Your task to perform on an android device: Open Maps and search for coffee Image 0: 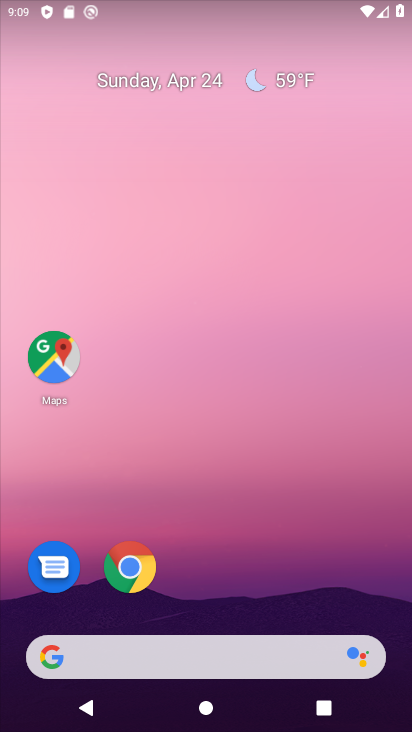
Step 0: click (337, 483)
Your task to perform on an android device: Open Maps and search for coffee Image 1: 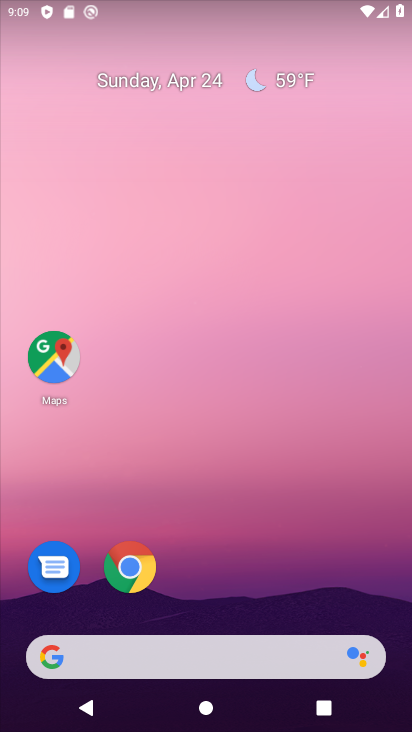
Step 1: click (51, 355)
Your task to perform on an android device: Open Maps and search for coffee Image 2: 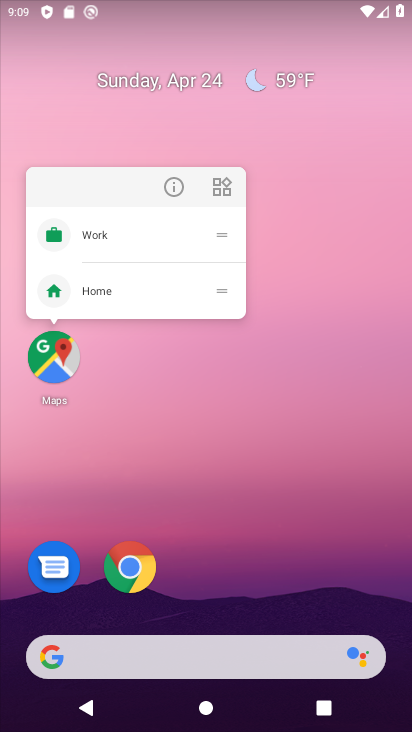
Step 2: click (51, 358)
Your task to perform on an android device: Open Maps and search for coffee Image 3: 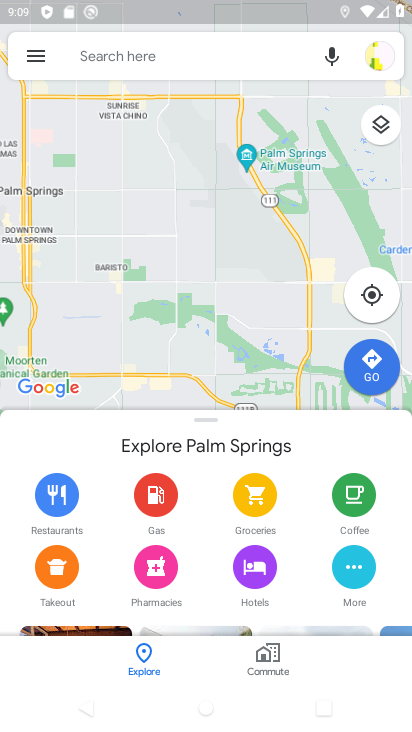
Step 3: click (77, 48)
Your task to perform on an android device: Open Maps and search for coffee Image 4: 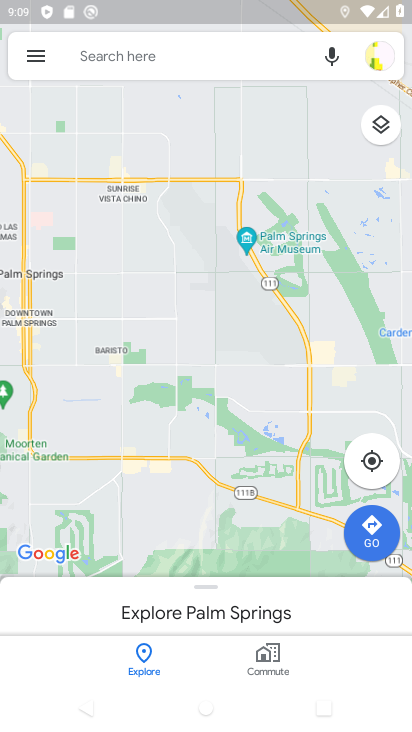
Step 4: click (112, 60)
Your task to perform on an android device: Open Maps and search for coffee Image 5: 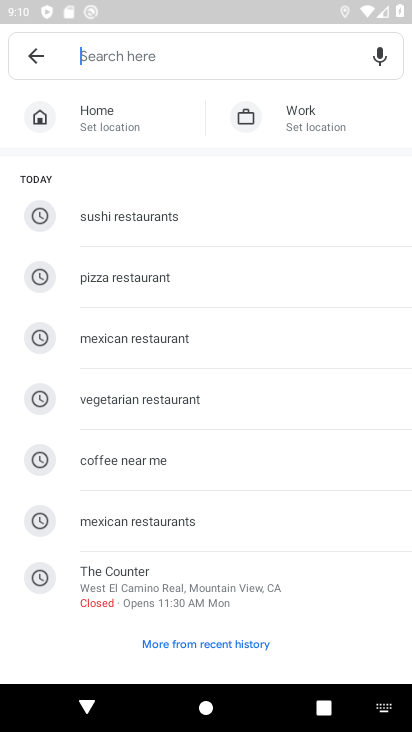
Step 5: type "coffee"
Your task to perform on an android device: Open Maps and search for coffee Image 6: 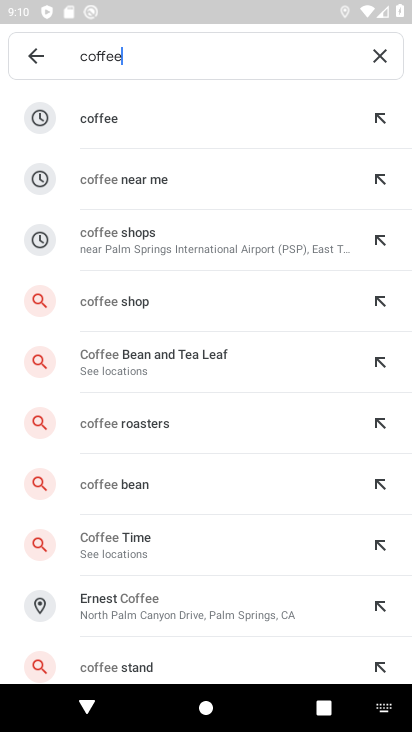
Step 6: click (102, 117)
Your task to perform on an android device: Open Maps and search for coffee Image 7: 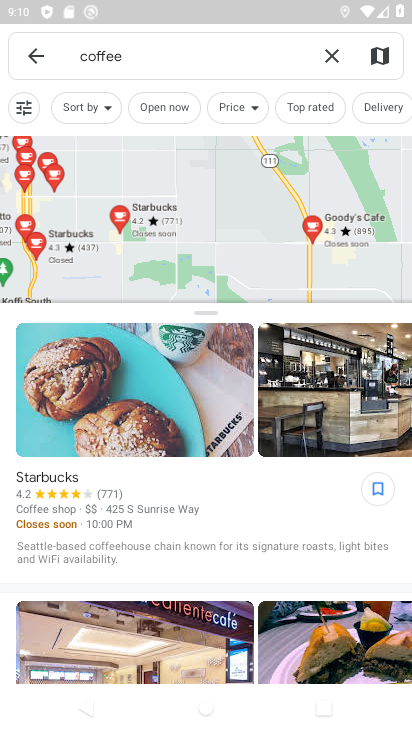
Step 7: task complete